Your task to perform on an android device: turn smart compose on in the gmail app Image 0: 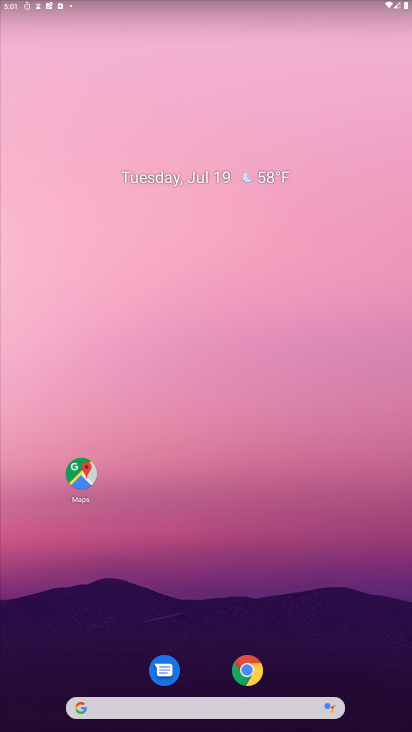
Step 0: drag from (215, 662) to (291, 5)
Your task to perform on an android device: turn smart compose on in the gmail app Image 1: 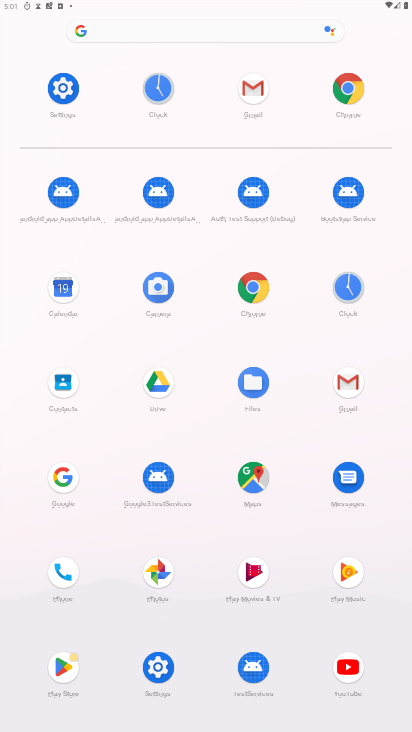
Step 1: click (350, 371)
Your task to perform on an android device: turn smart compose on in the gmail app Image 2: 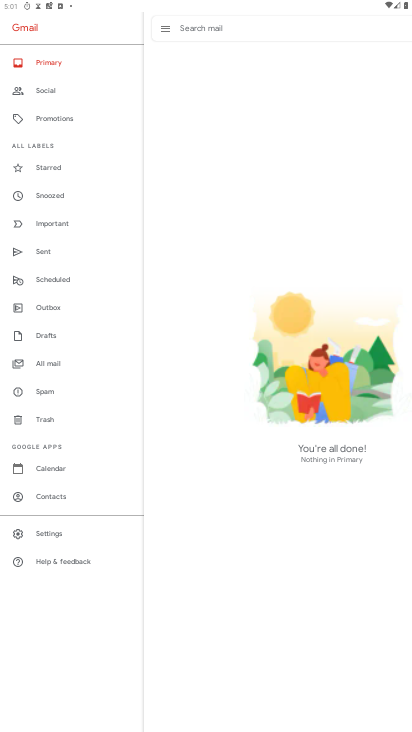
Step 2: click (73, 533)
Your task to perform on an android device: turn smart compose on in the gmail app Image 3: 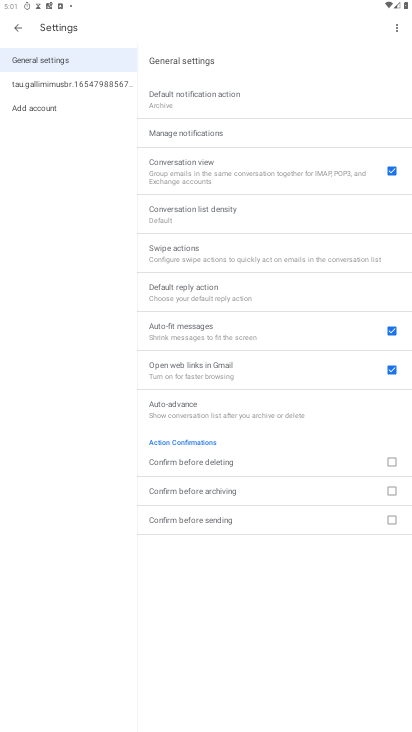
Step 3: click (99, 85)
Your task to perform on an android device: turn smart compose on in the gmail app Image 4: 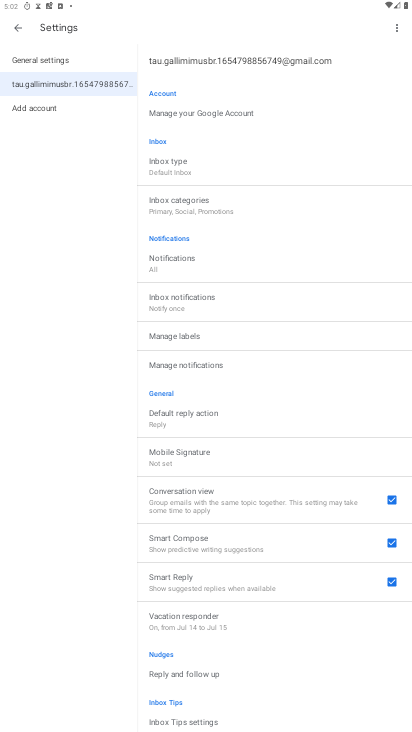
Step 4: click (204, 580)
Your task to perform on an android device: turn smart compose on in the gmail app Image 5: 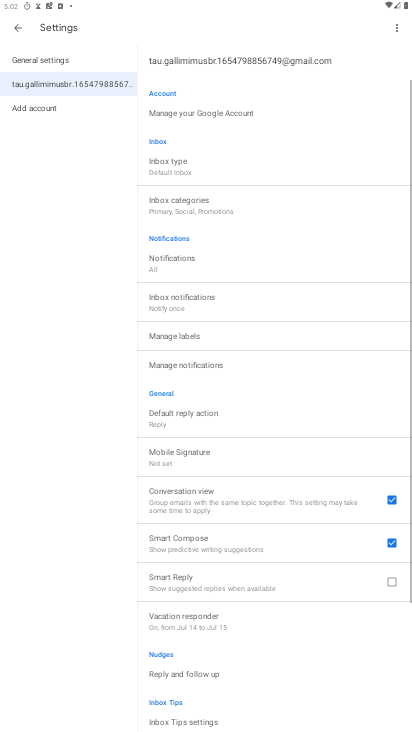
Step 5: click (204, 580)
Your task to perform on an android device: turn smart compose on in the gmail app Image 6: 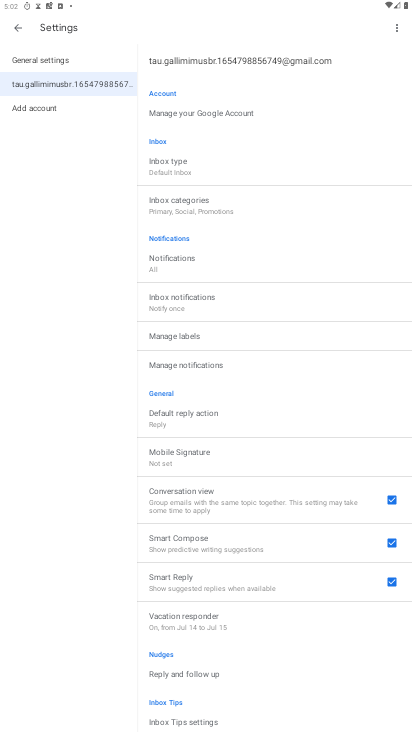
Step 6: task complete